Your task to perform on an android device: open device folders in google photos Image 0: 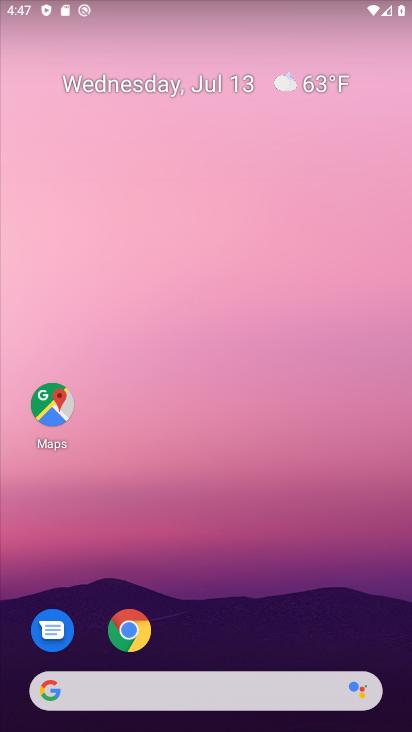
Step 0: press home button
Your task to perform on an android device: open device folders in google photos Image 1: 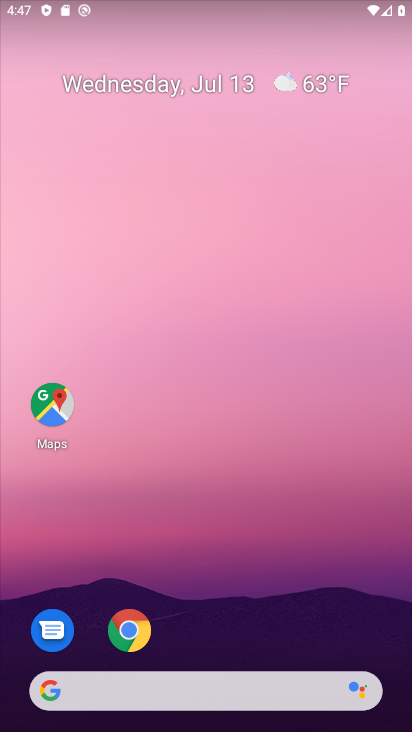
Step 1: drag from (225, 653) to (192, 143)
Your task to perform on an android device: open device folders in google photos Image 2: 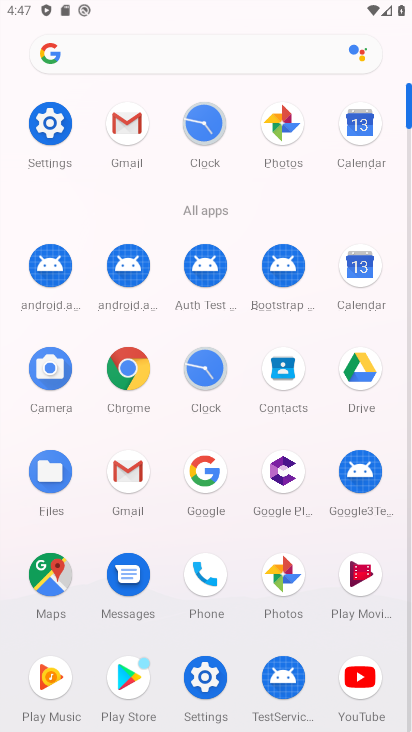
Step 2: click (281, 586)
Your task to perform on an android device: open device folders in google photos Image 3: 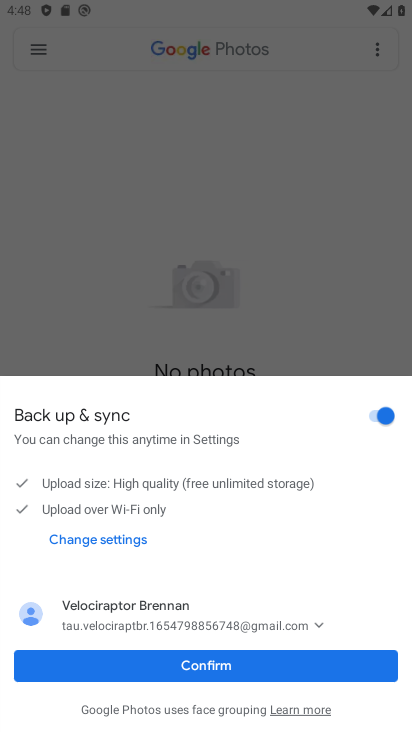
Step 3: click (188, 681)
Your task to perform on an android device: open device folders in google photos Image 4: 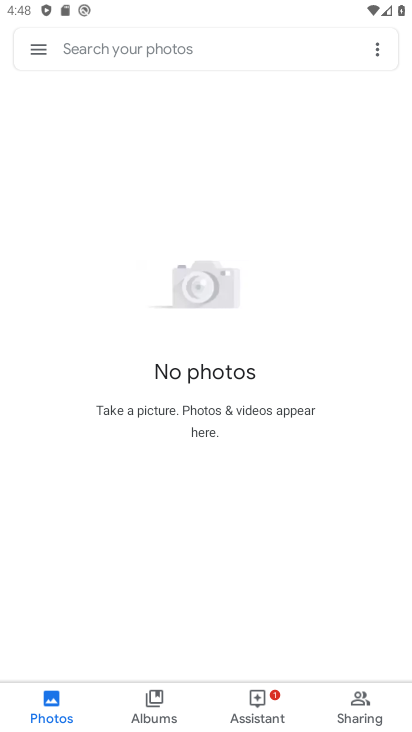
Step 4: click (39, 51)
Your task to perform on an android device: open device folders in google photos Image 5: 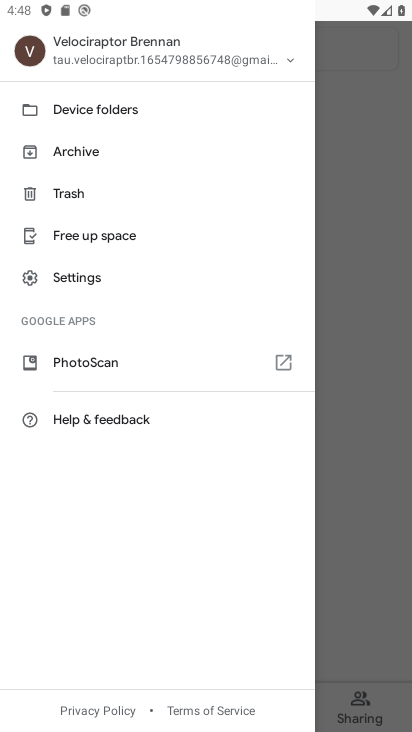
Step 5: click (94, 113)
Your task to perform on an android device: open device folders in google photos Image 6: 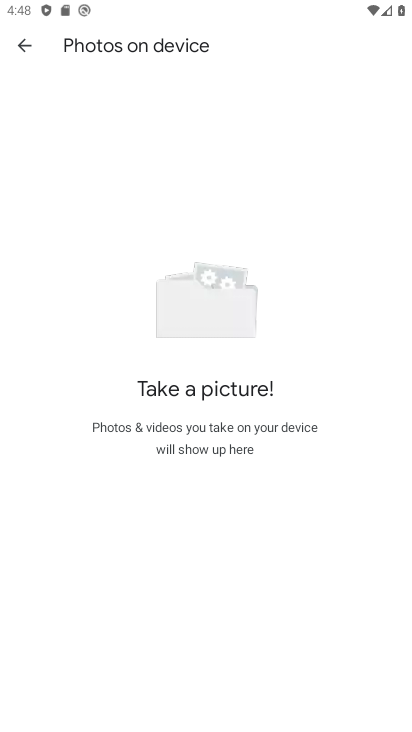
Step 6: task complete